Your task to perform on an android device: Go to CNN.com Image 0: 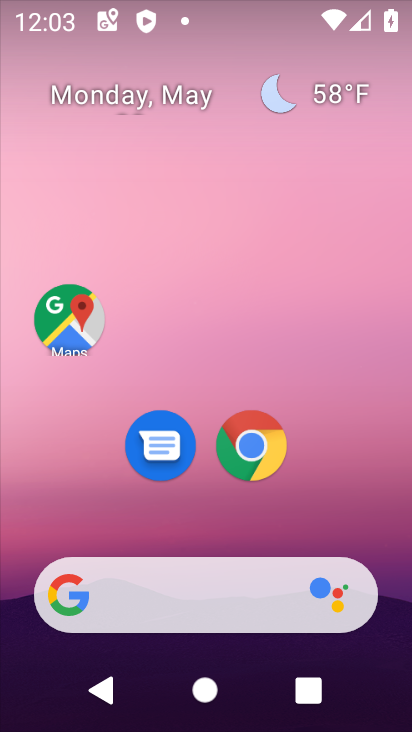
Step 0: click (251, 440)
Your task to perform on an android device: Go to CNN.com Image 1: 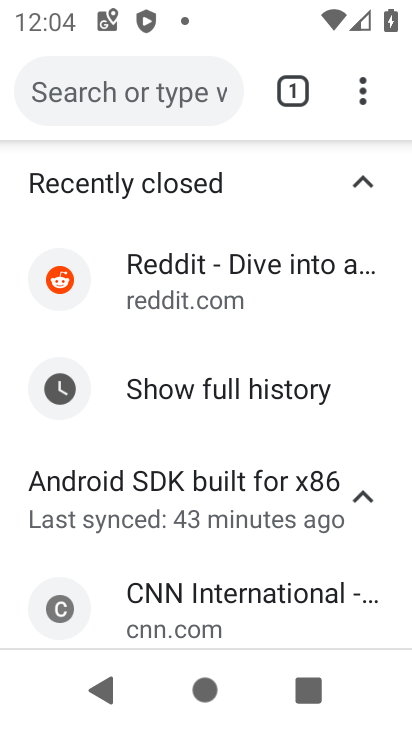
Step 1: click (297, 85)
Your task to perform on an android device: Go to CNN.com Image 2: 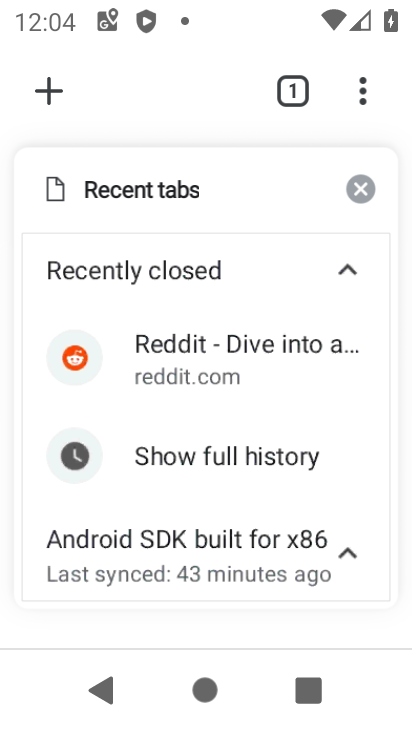
Step 2: click (362, 187)
Your task to perform on an android device: Go to CNN.com Image 3: 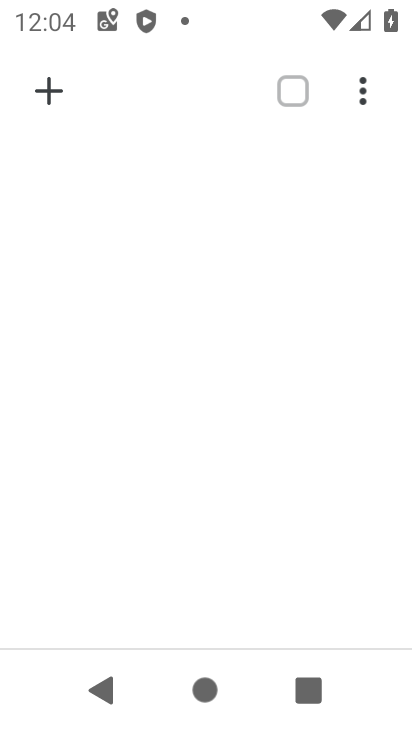
Step 3: click (57, 95)
Your task to perform on an android device: Go to CNN.com Image 4: 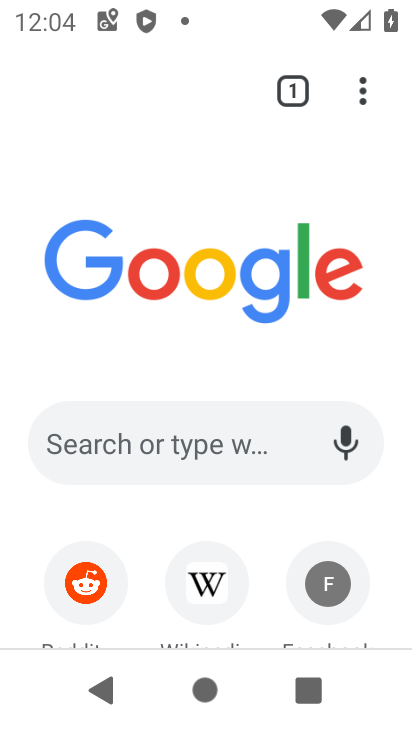
Step 4: click (182, 432)
Your task to perform on an android device: Go to CNN.com Image 5: 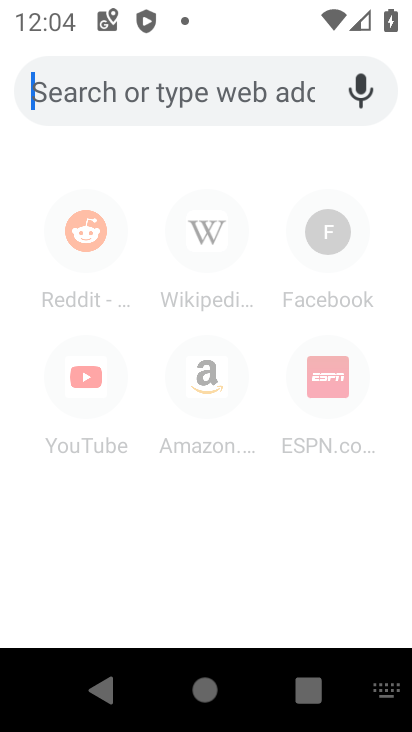
Step 5: type "cnn.com"
Your task to perform on an android device: Go to CNN.com Image 6: 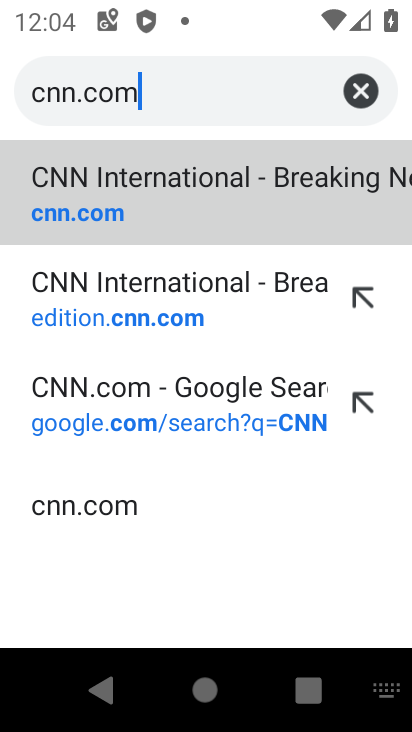
Step 6: click (166, 219)
Your task to perform on an android device: Go to CNN.com Image 7: 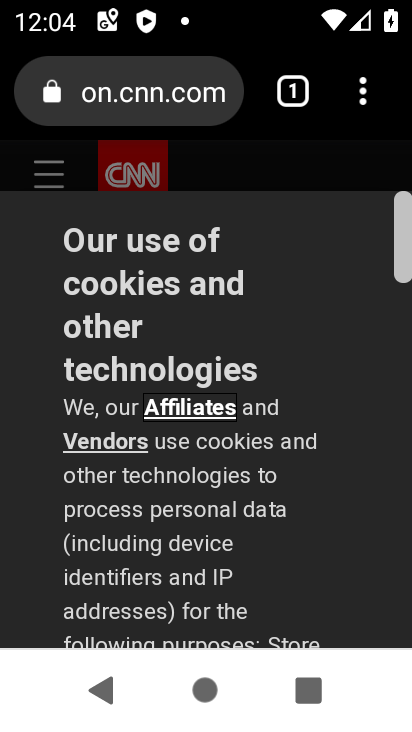
Step 7: drag from (223, 593) to (235, 142)
Your task to perform on an android device: Go to CNN.com Image 8: 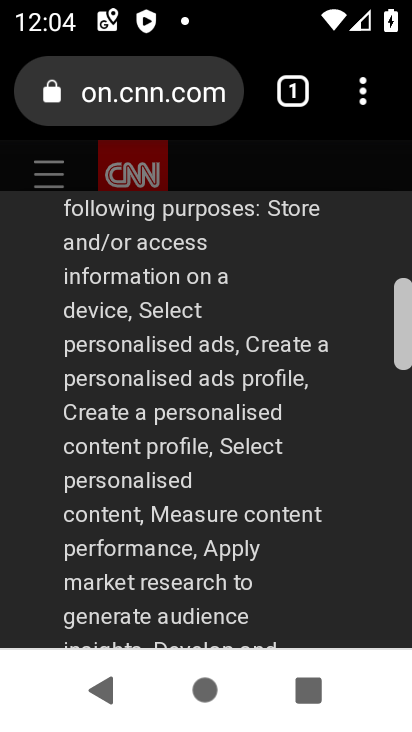
Step 8: drag from (206, 577) to (222, 173)
Your task to perform on an android device: Go to CNN.com Image 9: 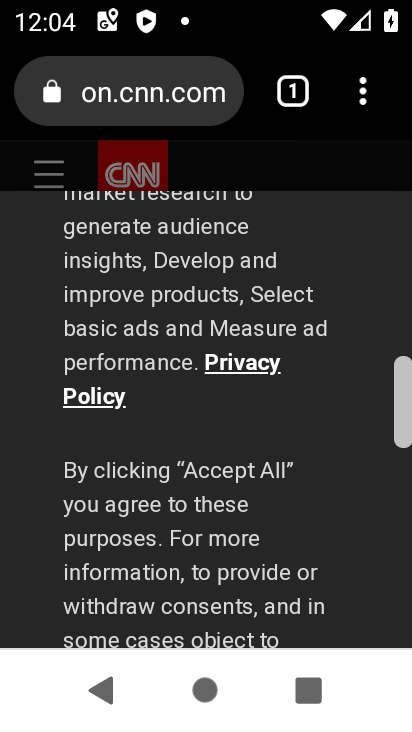
Step 9: drag from (199, 607) to (224, 193)
Your task to perform on an android device: Go to CNN.com Image 10: 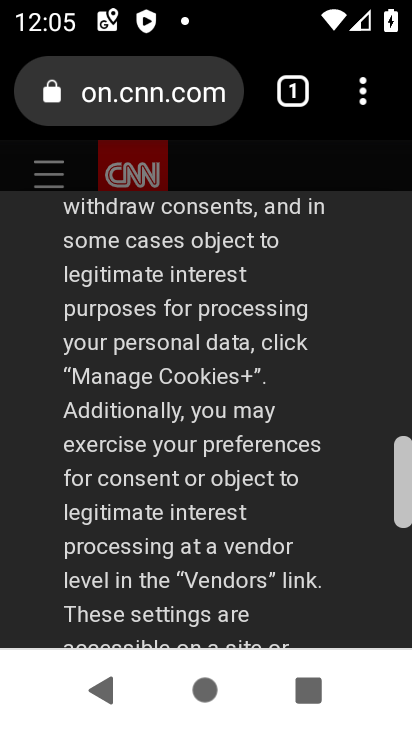
Step 10: drag from (190, 584) to (227, 212)
Your task to perform on an android device: Go to CNN.com Image 11: 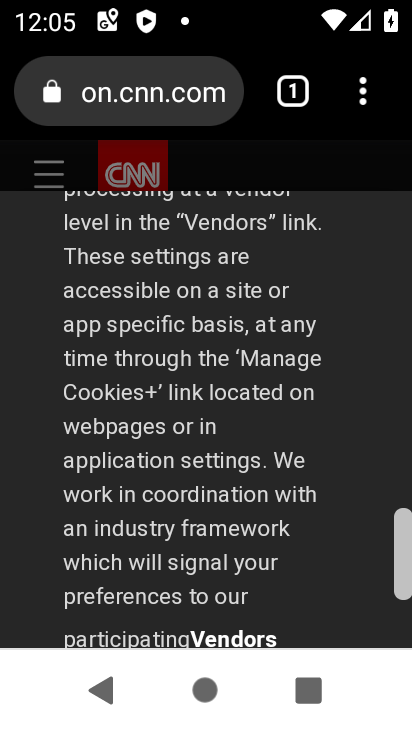
Step 11: drag from (222, 602) to (217, 188)
Your task to perform on an android device: Go to CNN.com Image 12: 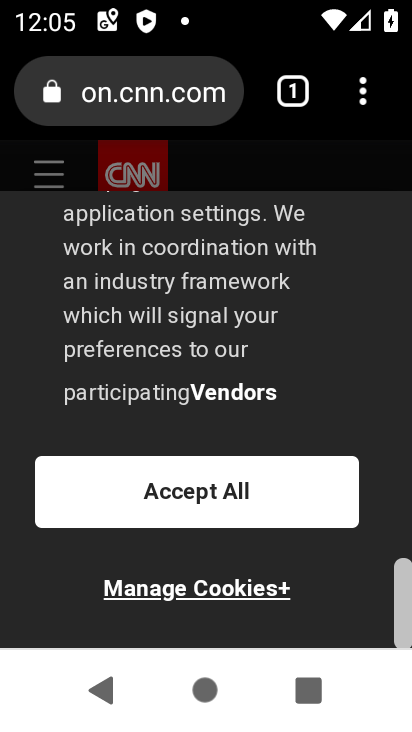
Step 12: click (200, 489)
Your task to perform on an android device: Go to CNN.com Image 13: 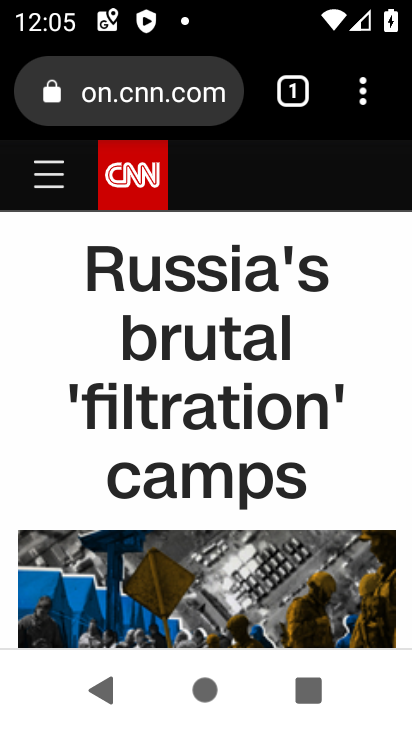
Step 13: task complete